Your task to perform on an android device: Show me the alarms in the clock app Image 0: 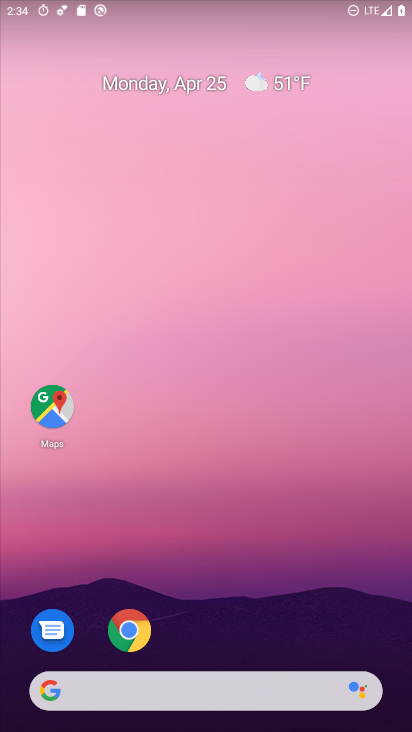
Step 0: drag from (206, 641) to (267, 153)
Your task to perform on an android device: Show me the alarms in the clock app Image 1: 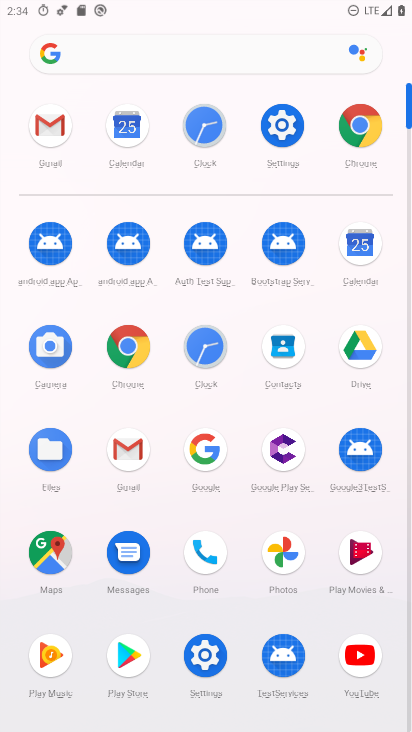
Step 1: click (191, 351)
Your task to perform on an android device: Show me the alarms in the clock app Image 2: 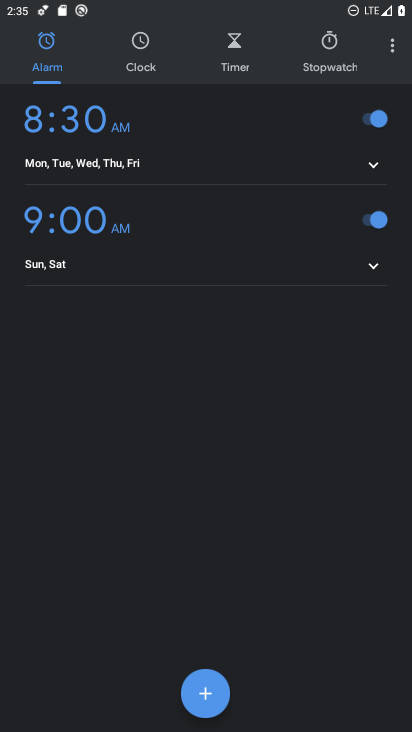
Step 2: task complete